Your task to perform on an android device: create a new album in the google photos Image 0: 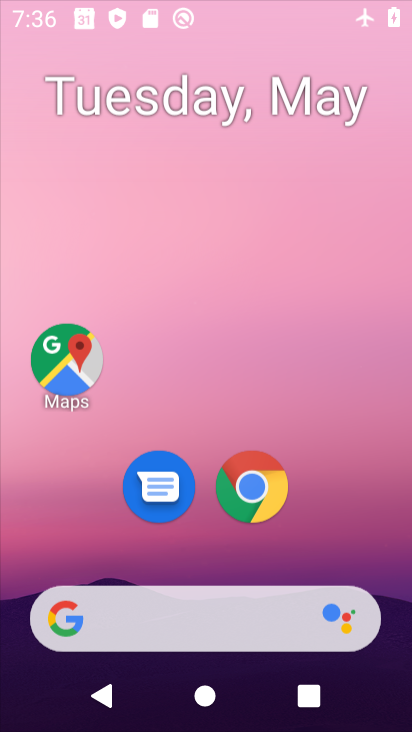
Step 0: click (354, 218)
Your task to perform on an android device: create a new album in the google photos Image 1: 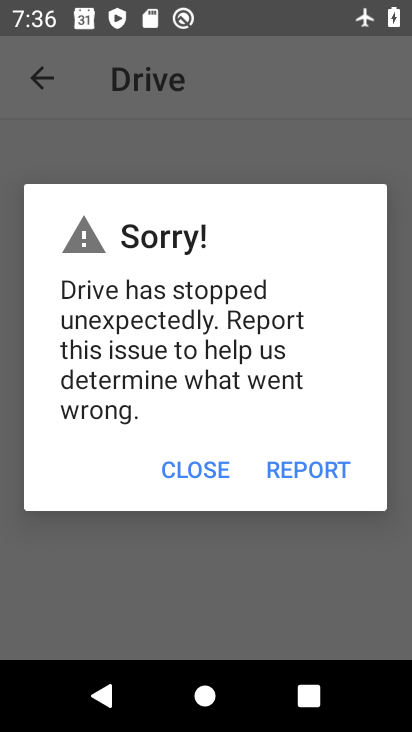
Step 1: press home button
Your task to perform on an android device: create a new album in the google photos Image 2: 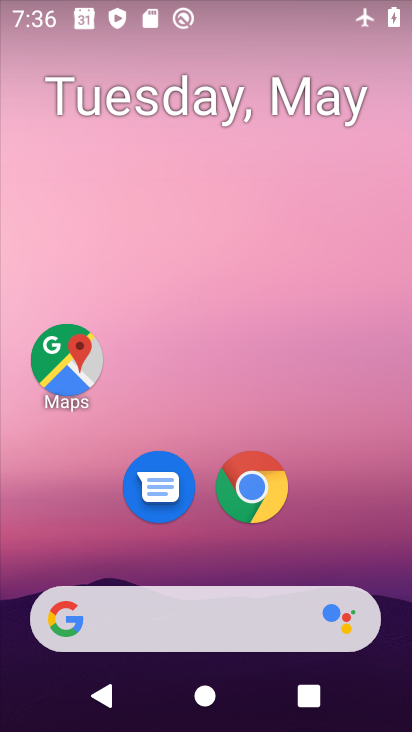
Step 2: drag from (372, 534) to (374, 229)
Your task to perform on an android device: create a new album in the google photos Image 3: 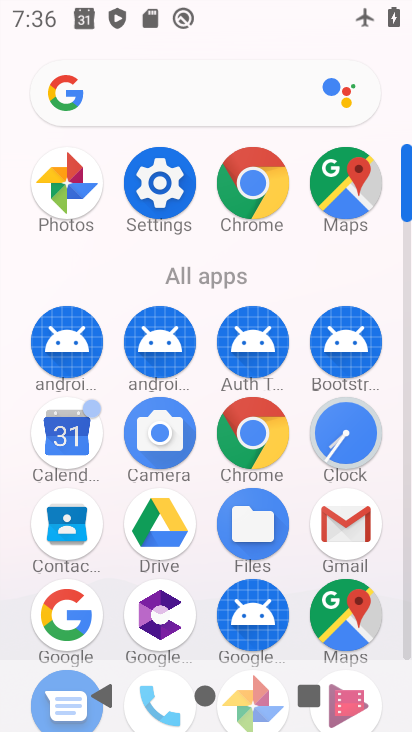
Step 3: drag from (391, 511) to (387, 208)
Your task to perform on an android device: create a new album in the google photos Image 4: 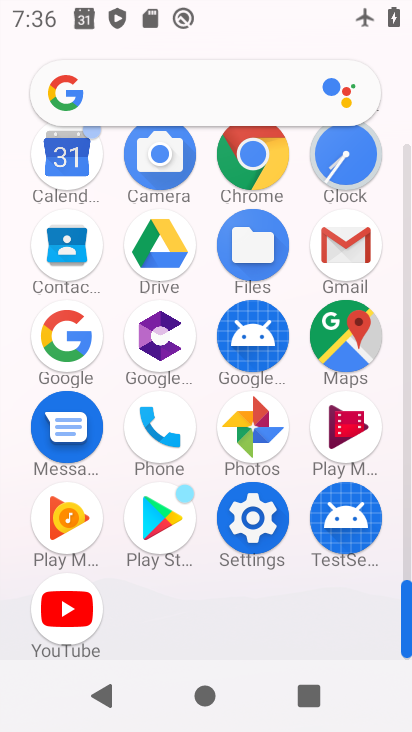
Step 4: click (252, 428)
Your task to perform on an android device: create a new album in the google photos Image 5: 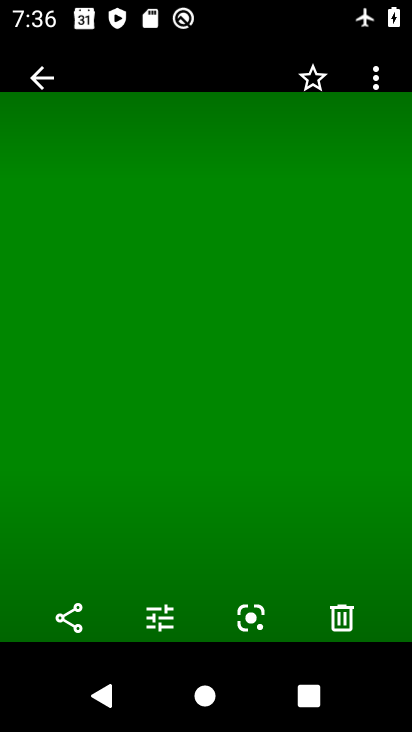
Step 5: click (41, 88)
Your task to perform on an android device: create a new album in the google photos Image 6: 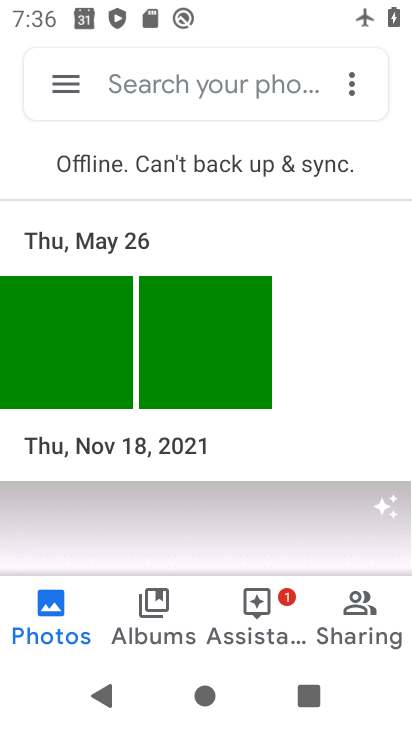
Step 6: click (354, 98)
Your task to perform on an android device: create a new album in the google photos Image 7: 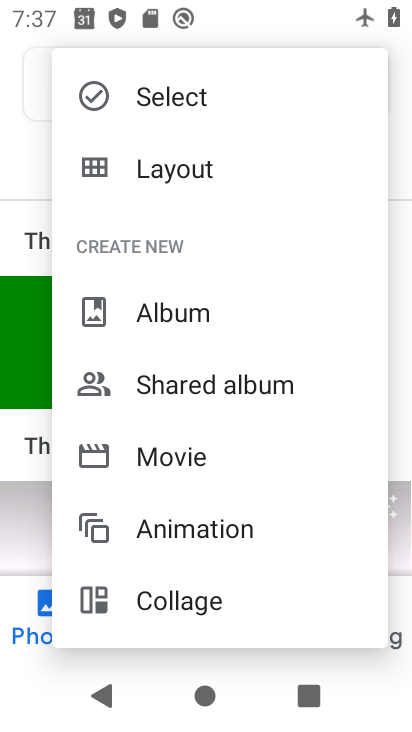
Step 7: drag from (306, 488) to (328, 322)
Your task to perform on an android device: create a new album in the google photos Image 8: 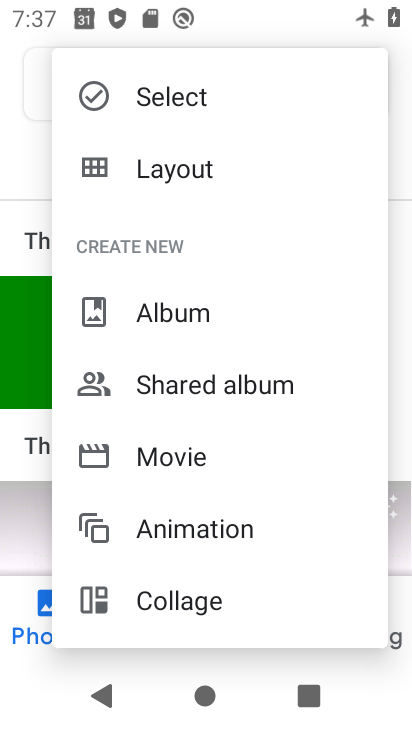
Step 8: click (206, 316)
Your task to perform on an android device: create a new album in the google photos Image 9: 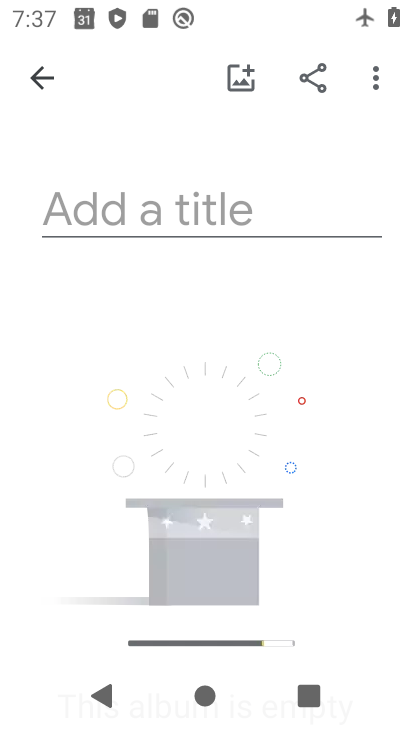
Step 9: click (216, 218)
Your task to perform on an android device: create a new album in the google photos Image 10: 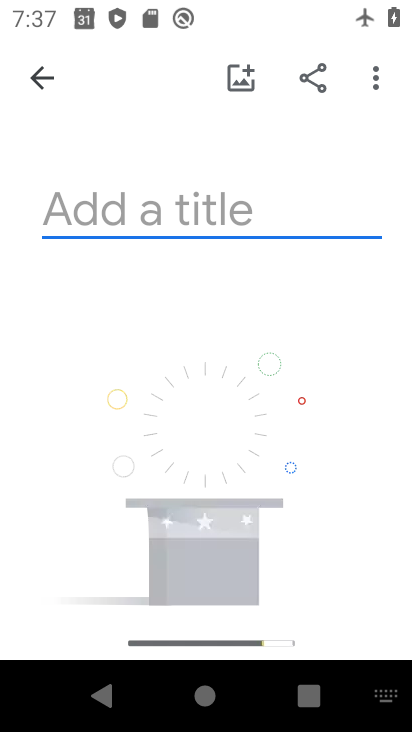
Step 10: type "fav"
Your task to perform on an android device: create a new album in the google photos Image 11: 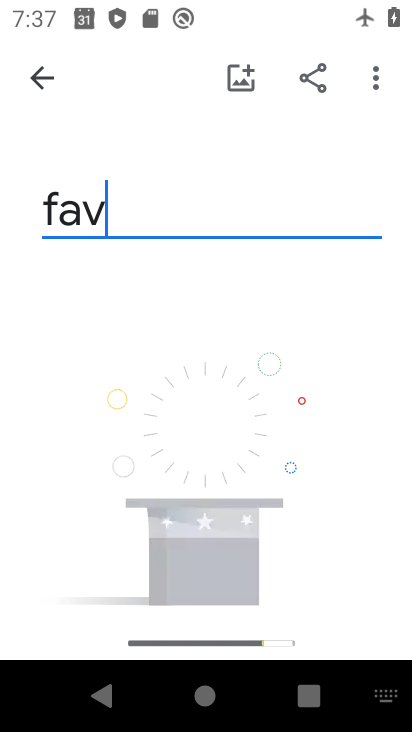
Step 11: drag from (334, 465) to (346, 214)
Your task to perform on an android device: create a new album in the google photos Image 12: 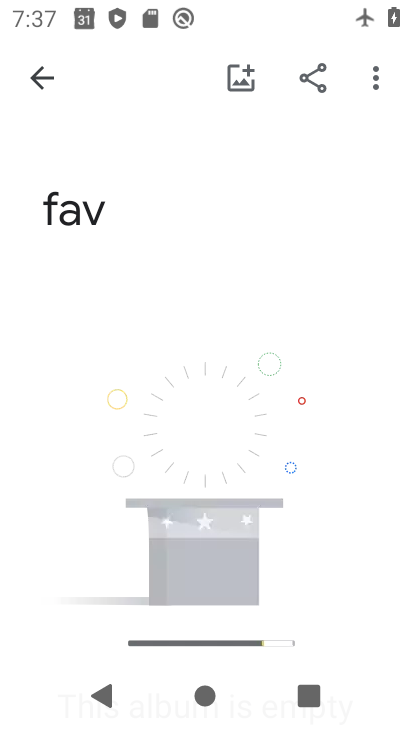
Step 12: drag from (211, 466) to (195, 215)
Your task to perform on an android device: create a new album in the google photos Image 13: 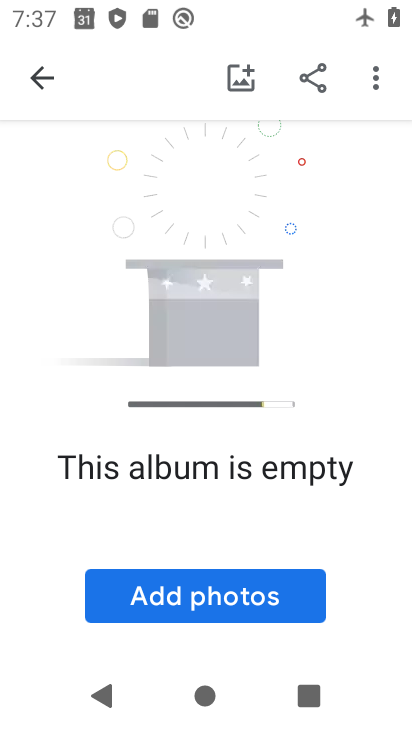
Step 13: drag from (209, 437) to (220, 286)
Your task to perform on an android device: create a new album in the google photos Image 14: 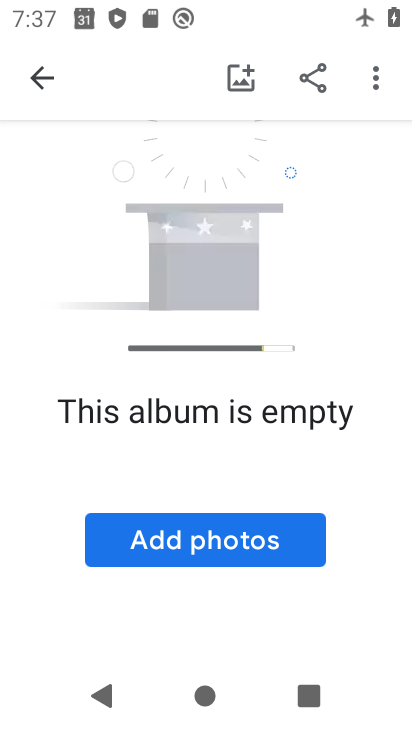
Step 14: click (211, 536)
Your task to perform on an android device: create a new album in the google photos Image 15: 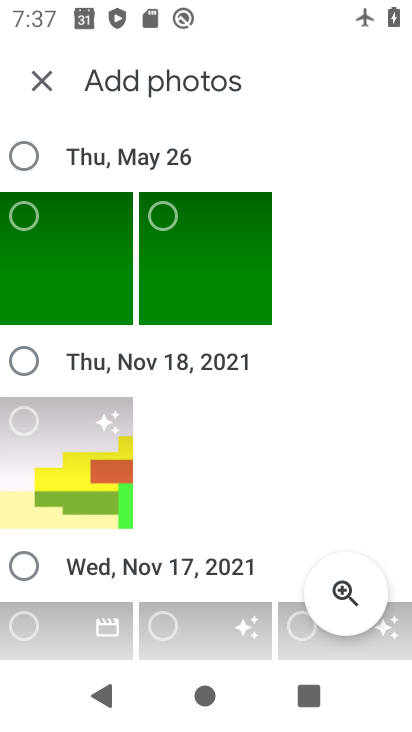
Step 15: click (70, 275)
Your task to perform on an android device: create a new album in the google photos Image 16: 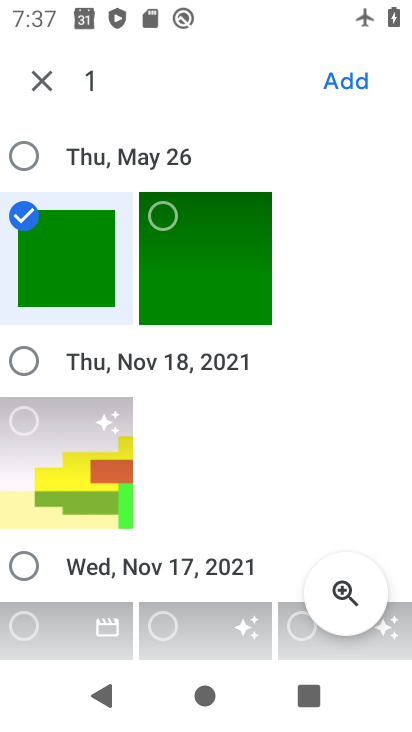
Step 16: click (353, 80)
Your task to perform on an android device: create a new album in the google photos Image 17: 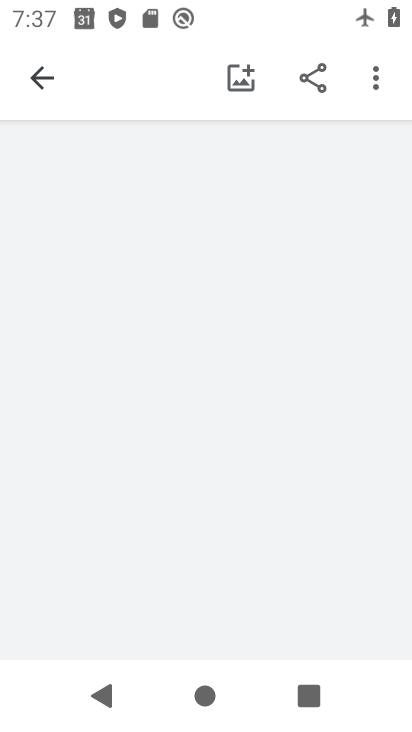
Step 17: task complete